Your task to perform on an android device: set an alarm Image 0: 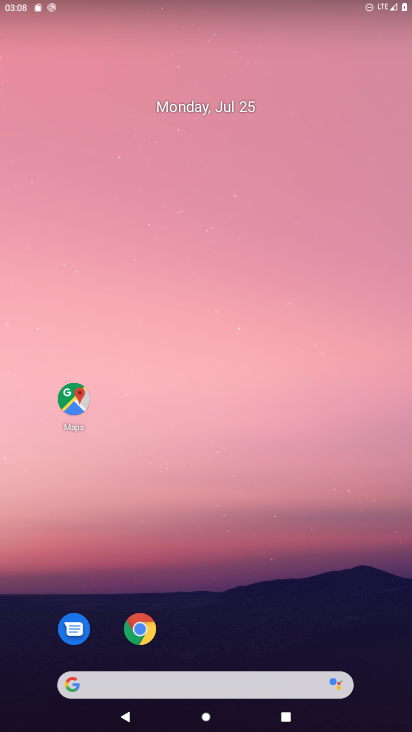
Step 0: drag from (295, 489) to (365, 6)
Your task to perform on an android device: set an alarm Image 1: 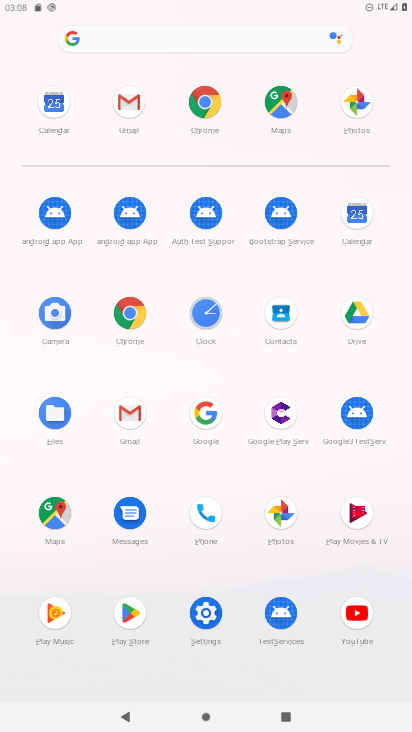
Step 1: click (199, 305)
Your task to perform on an android device: set an alarm Image 2: 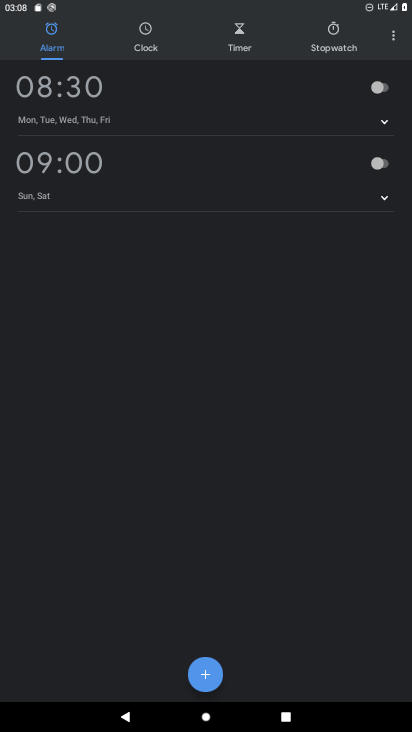
Step 2: click (210, 662)
Your task to perform on an android device: set an alarm Image 3: 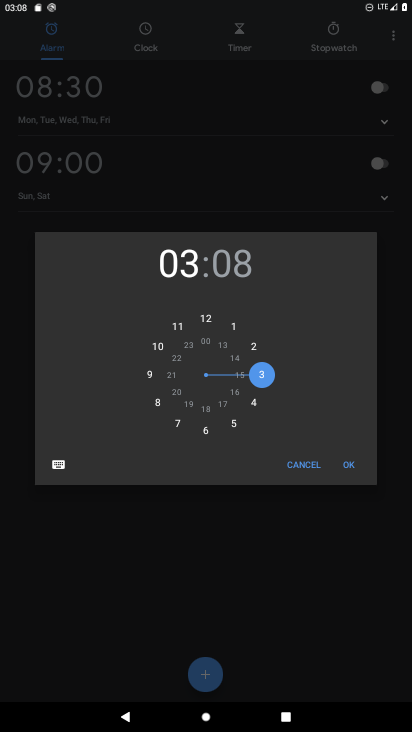
Step 3: click (234, 428)
Your task to perform on an android device: set an alarm Image 4: 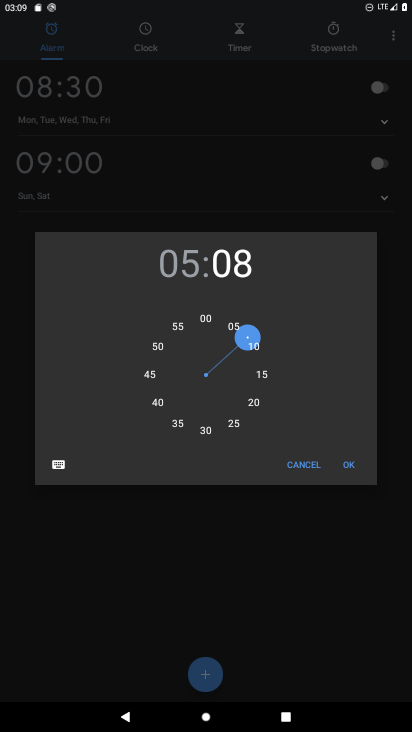
Step 4: click (205, 429)
Your task to perform on an android device: set an alarm Image 5: 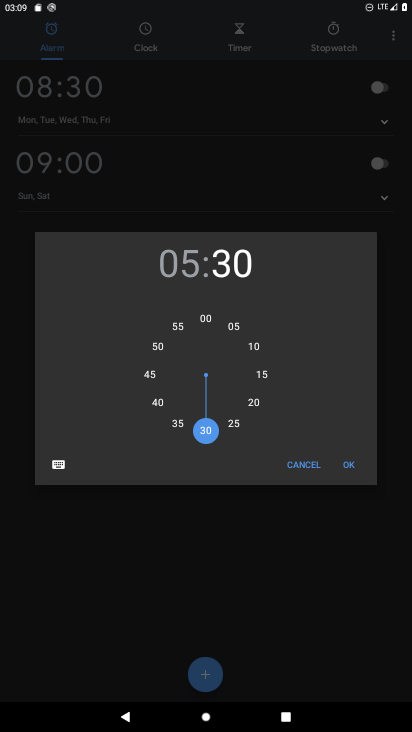
Step 5: click (348, 459)
Your task to perform on an android device: set an alarm Image 6: 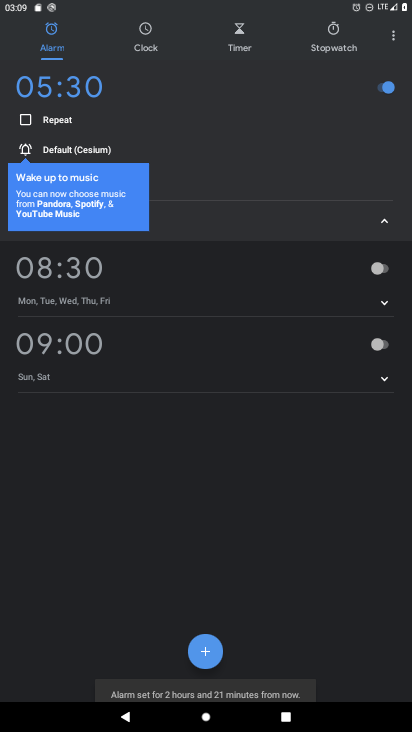
Step 6: task complete